Your task to perform on an android device: Search for Italian restaurants on Maps Image 0: 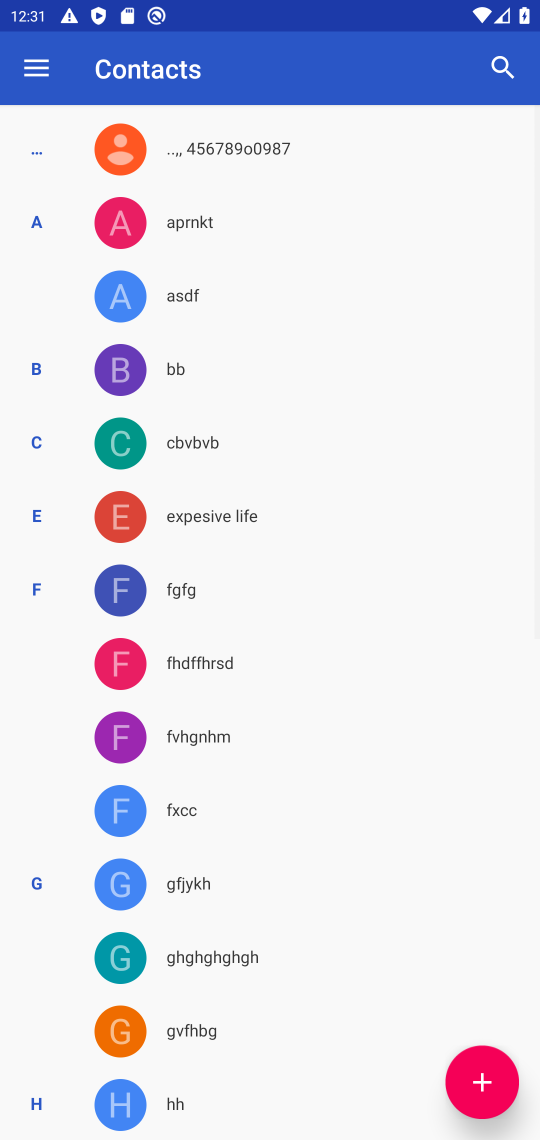
Step 0: press home button
Your task to perform on an android device: Search for Italian restaurants on Maps Image 1: 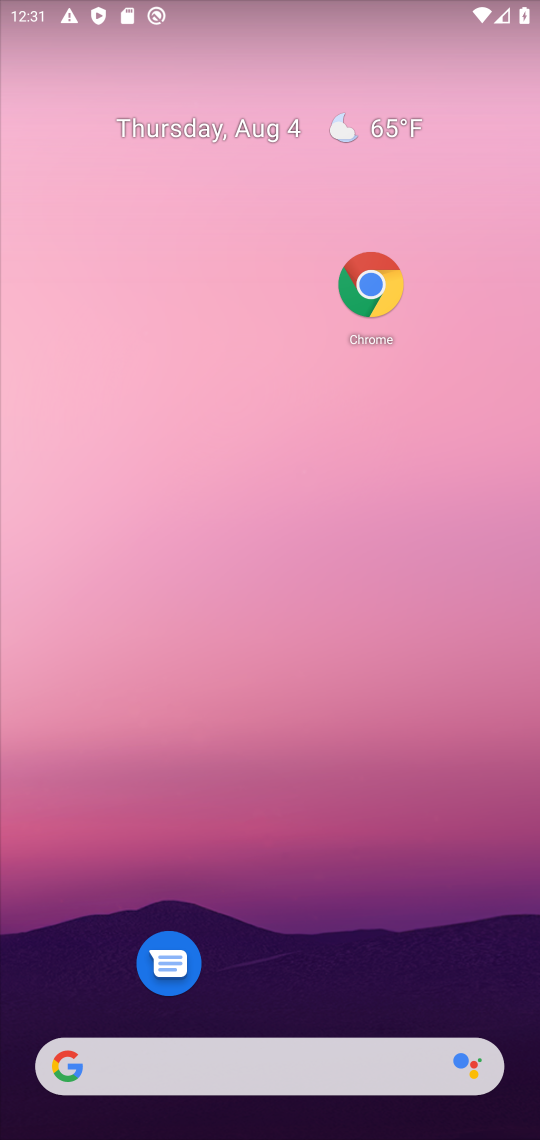
Step 1: drag from (241, 1012) to (199, 186)
Your task to perform on an android device: Search for Italian restaurants on Maps Image 2: 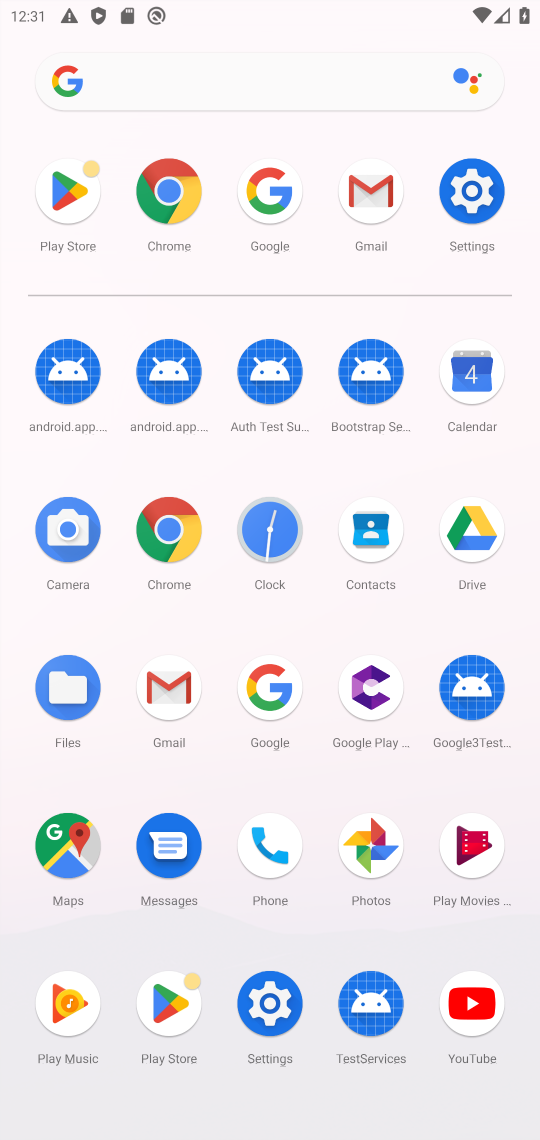
Step 2: click (75, 847)
Your task to perform on an android device: Search for Italian restaurants on Maps Image 3: 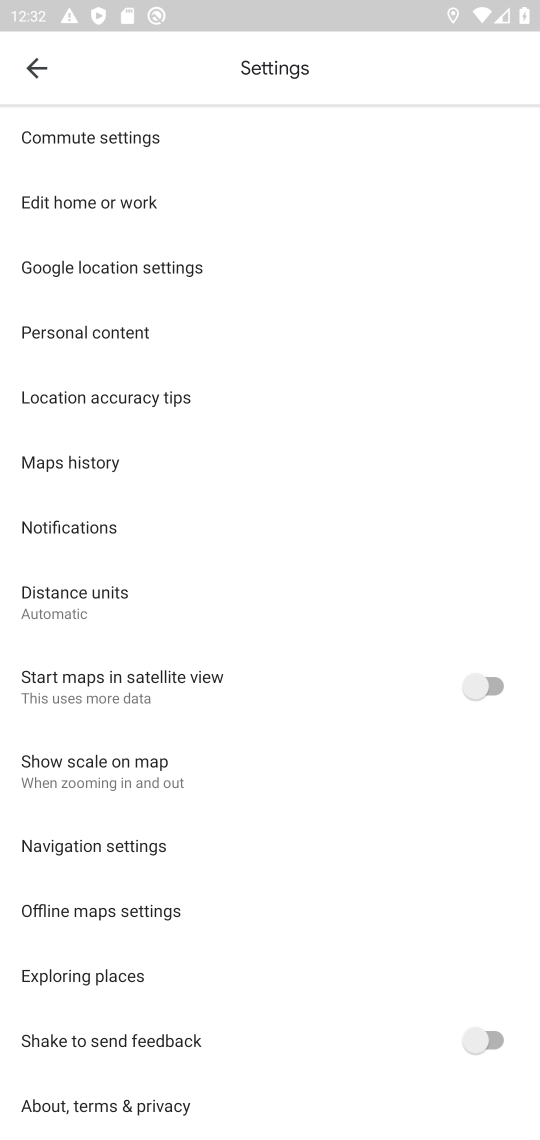
Step 3: click (62, 56)
Your task to perform on an android device: Search for Italian restaurants on Maps Image 4: 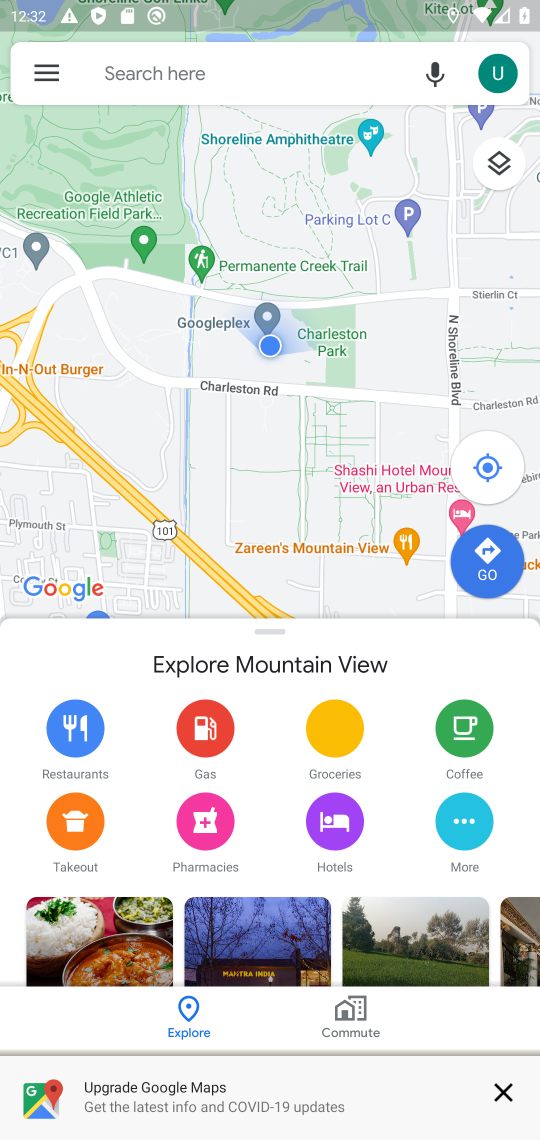
Step 4: click (167, 56)
Your task to perform on an android device: Search for Italian restaurants on Maps Image 5: 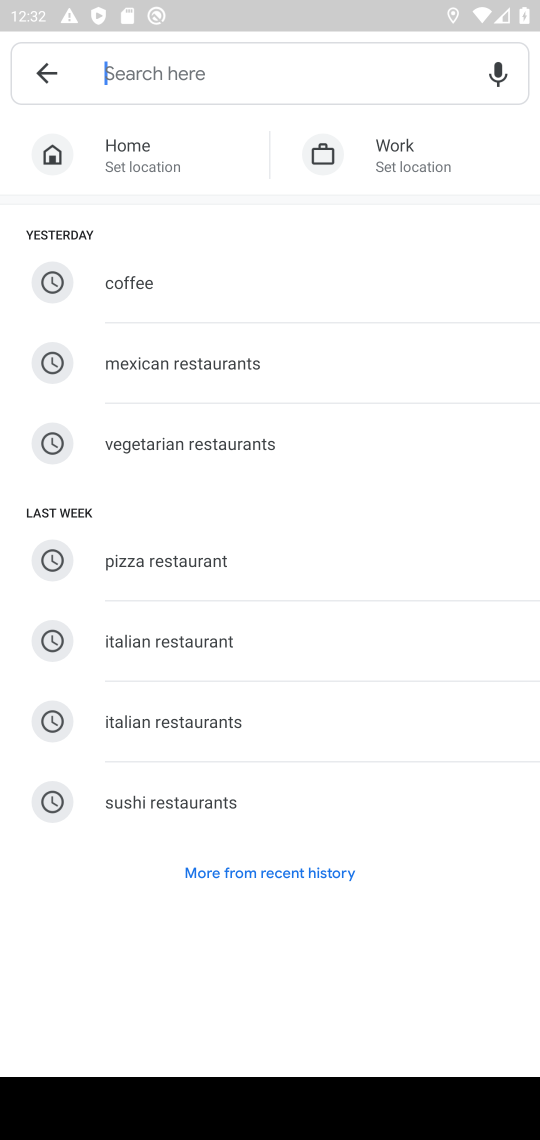
Step 5: click (218, 719)
Your task to perform on an android device: Search for Italian restaurants on Maps Image 6: 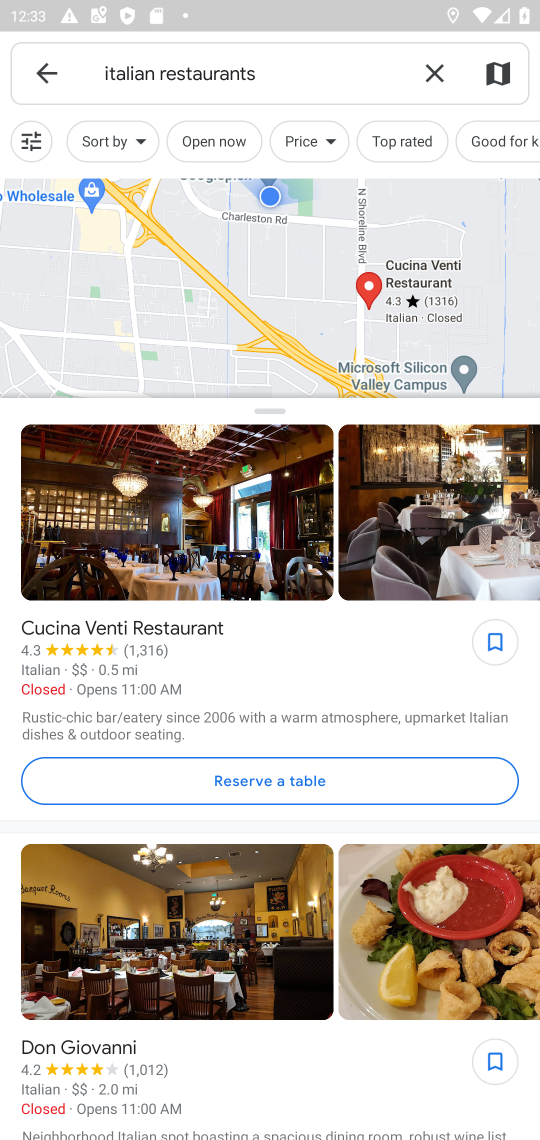
Step 6: task complete